Your task to perform on an android device: Go to accessibility settings Image 0: 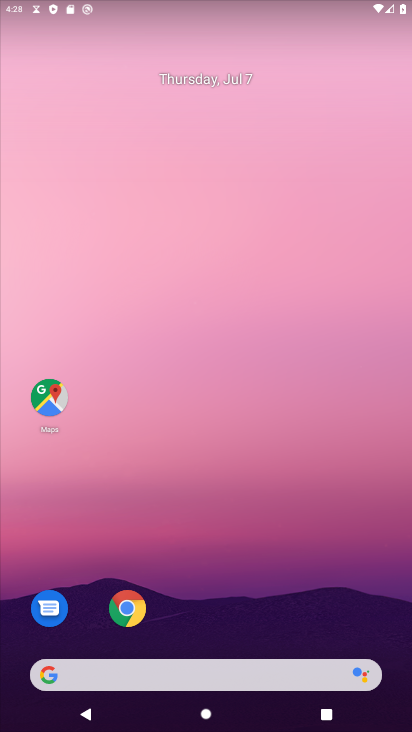
Step 0: drag from (270, 598) to (246, 238)
Your task to perform on an android device: Go to accessibility settings Image 1: 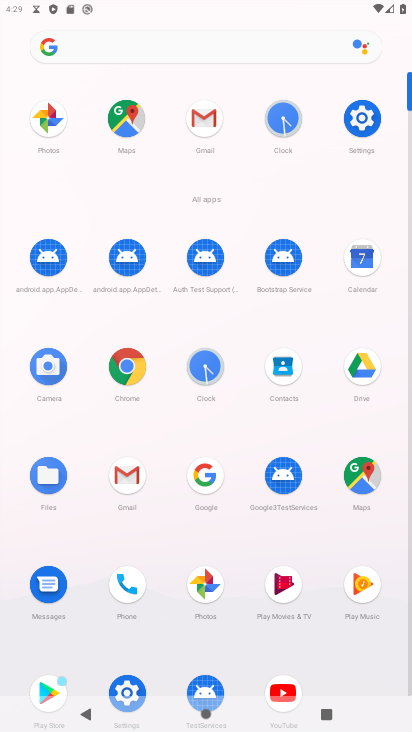
Step 1: click (366, 114)
Your task to perform on an android device: Go to accessibility settings Image 2: 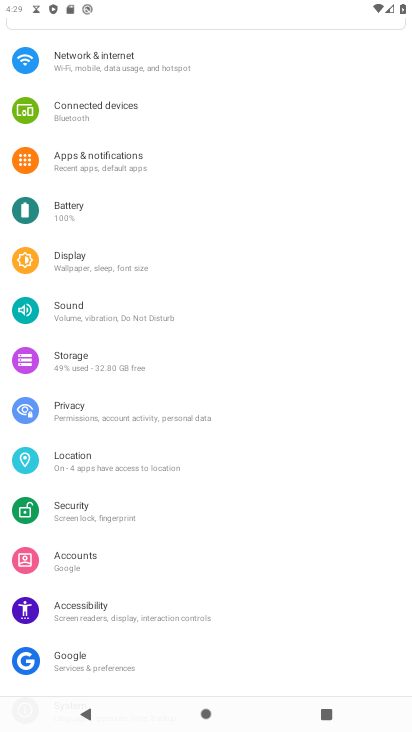
Step 2: click (90, 604)
Your task to perform on an android device: Go to accessibility settings Image 3: 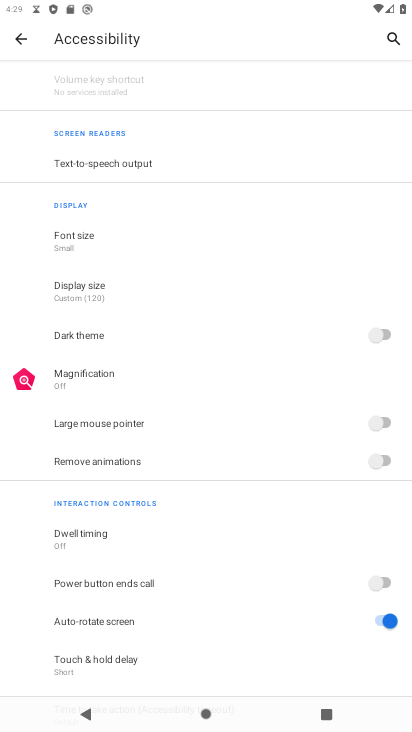
Step 3: task complete